Your task to perform on an android device: Go to display settings Image 0: 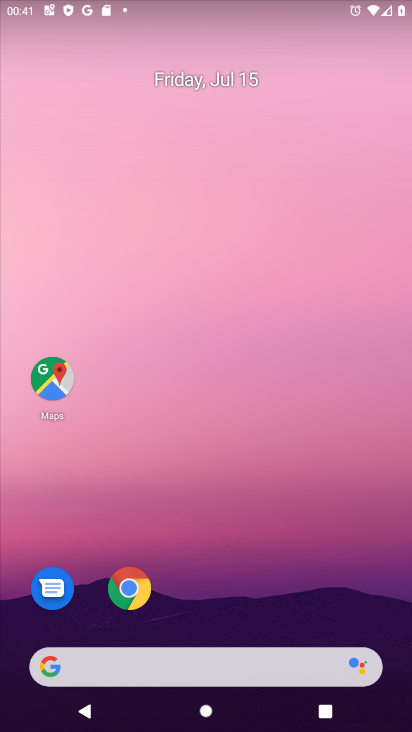
Step 0: press home button
Your task to perform on an android device: Go to display settings Image 1: 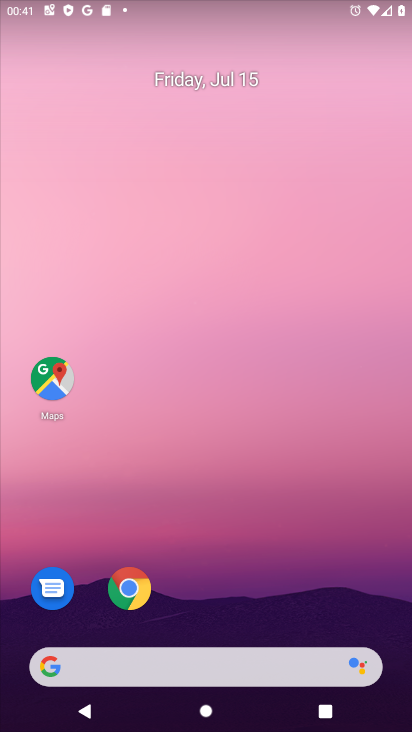
Step 1: drag from (170, 665) to (296, 29)
Your task to perform on an android device: Go to display settings Image 2: 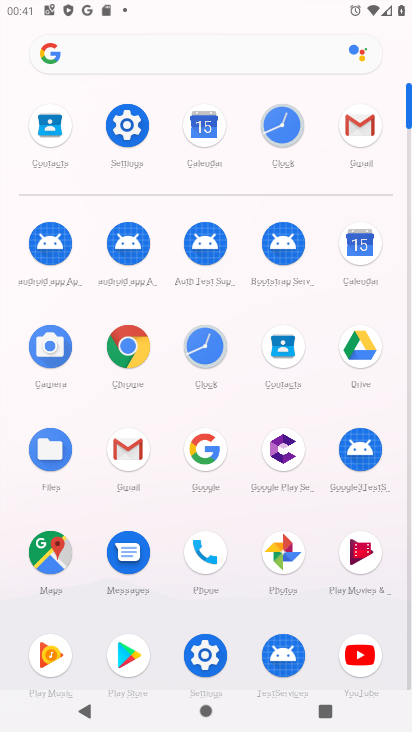
Step 2: click (123, 133)
Your task to perform on an android device: Go to display settings Image 3: 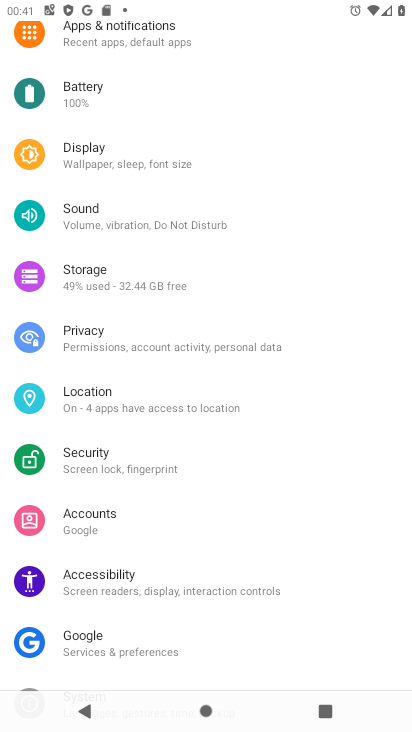
Step 3: click (91, 159)
Your task to perform on an android device: Go to display settings Image 4: 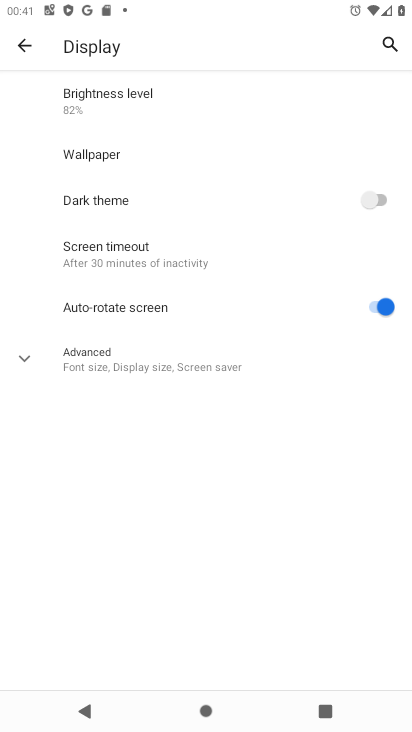
Step 4: task complete